Your task to perform on an android device: check battery use Image 0: 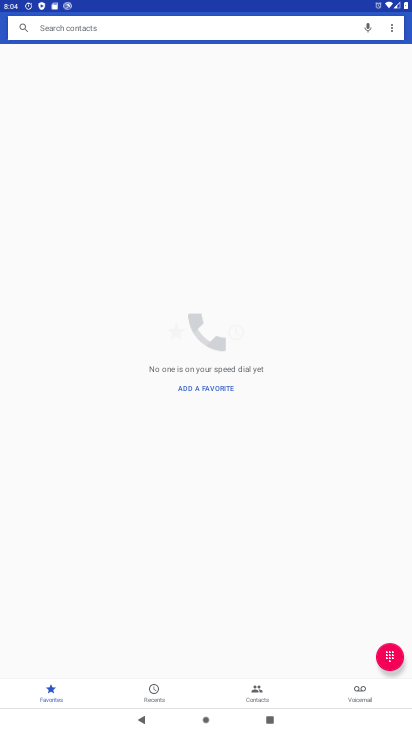
Step 0: press home button
Your task to perform on an android device: check battery use Image 1: 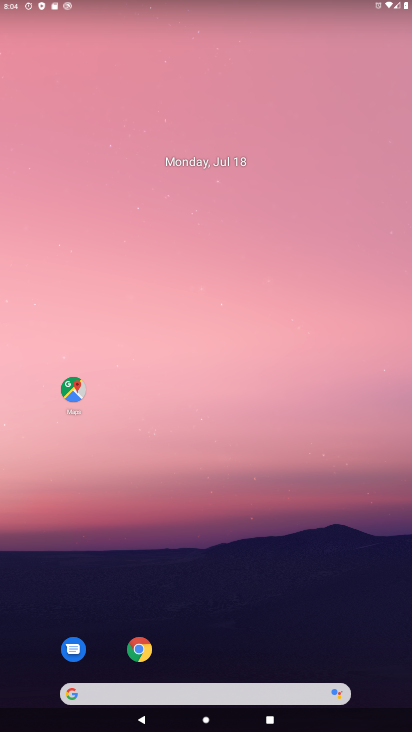
Step 1: drag from (341, 606) to (303, 163)
Your task to perform on an android device: check battery use Image 2: 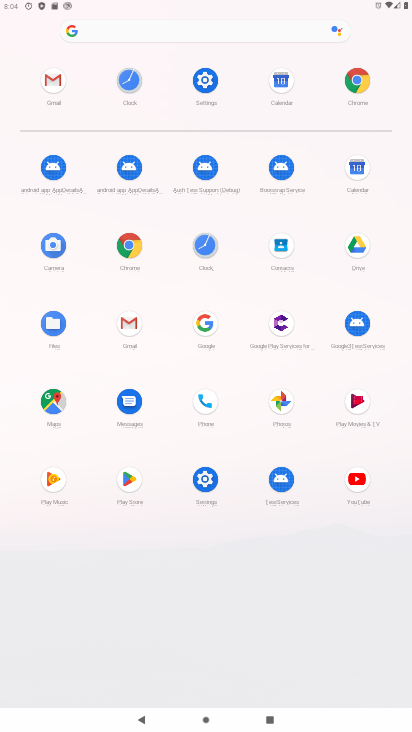
Step 2: click (213, 85)
Your task to perform on an android device: check battery use Image 3: 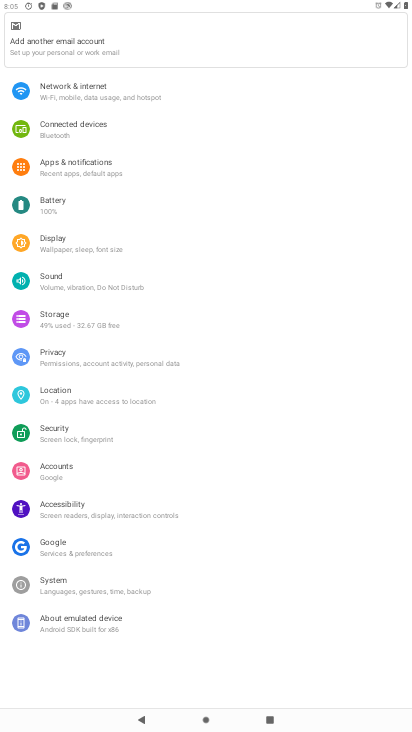
Step 3: click (48, 204)
Your task to perform on an android device: check battery use Image 4: 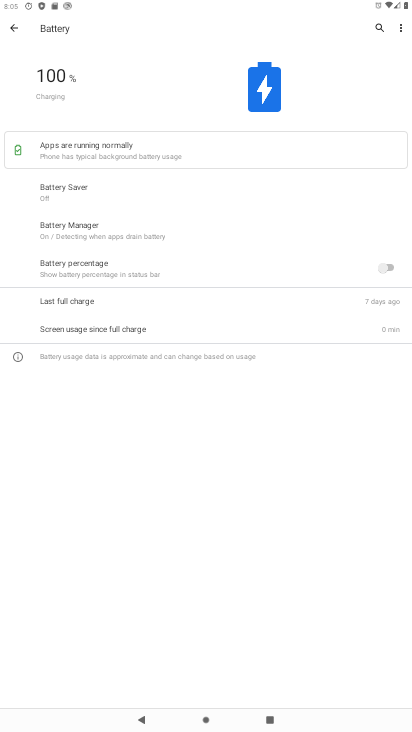
Step 4: click (405, 19)
Your task to perform on an android device: check battery use Image 5: 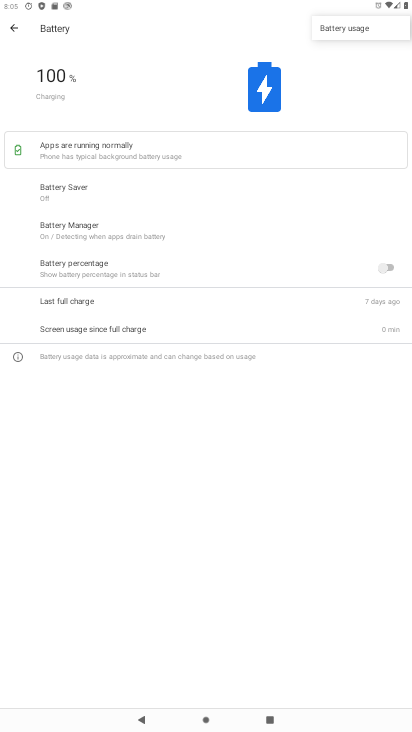
Step 5: click (341, 20)
Your task to perform on an android device: check battery use Image 6: 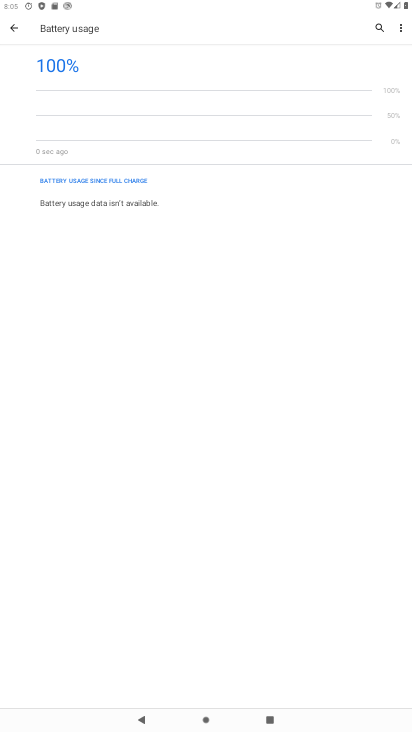
Step 6: task complete